Your task to perform on an android device: open app "Spotify" Image 0: 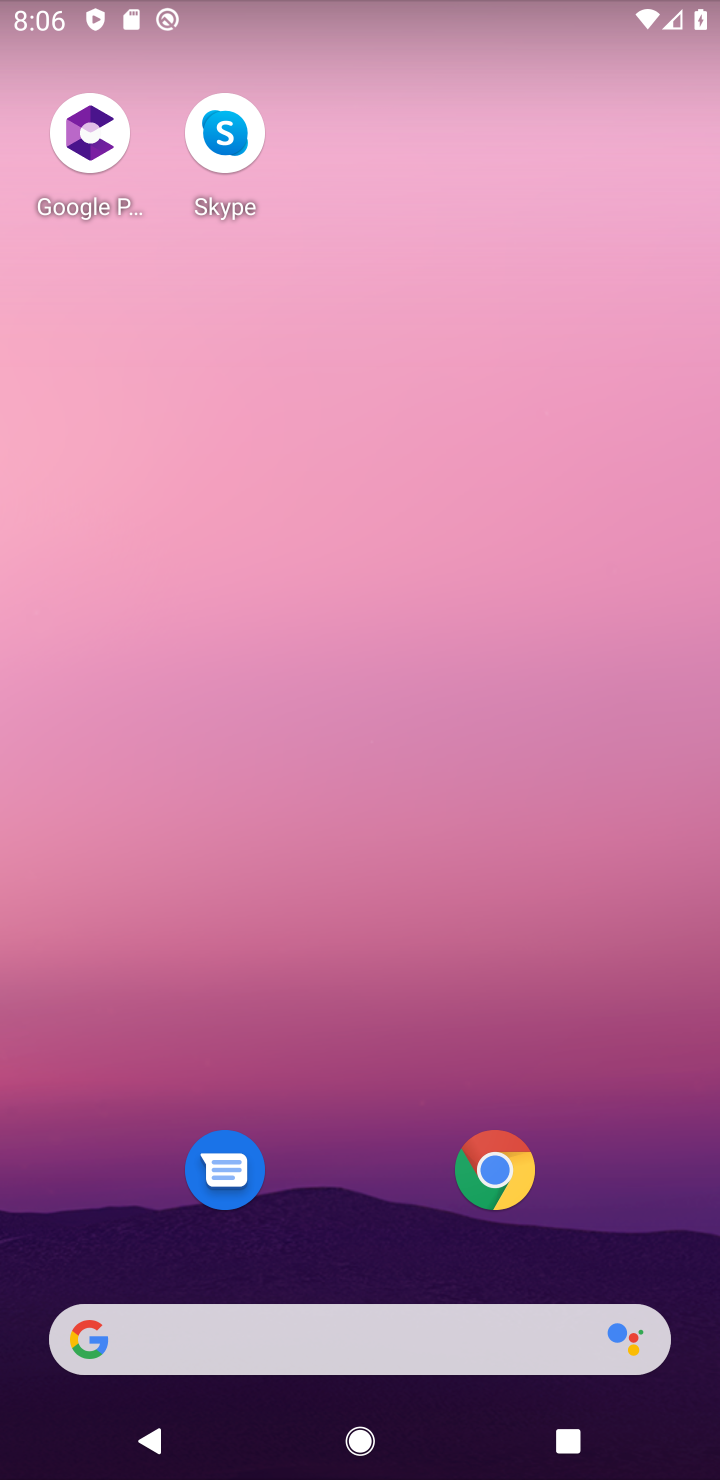
Step 0: drag from (424, 984) to (554, 67)
Your task to perform on an android device: open app "Spotify" Image 1: 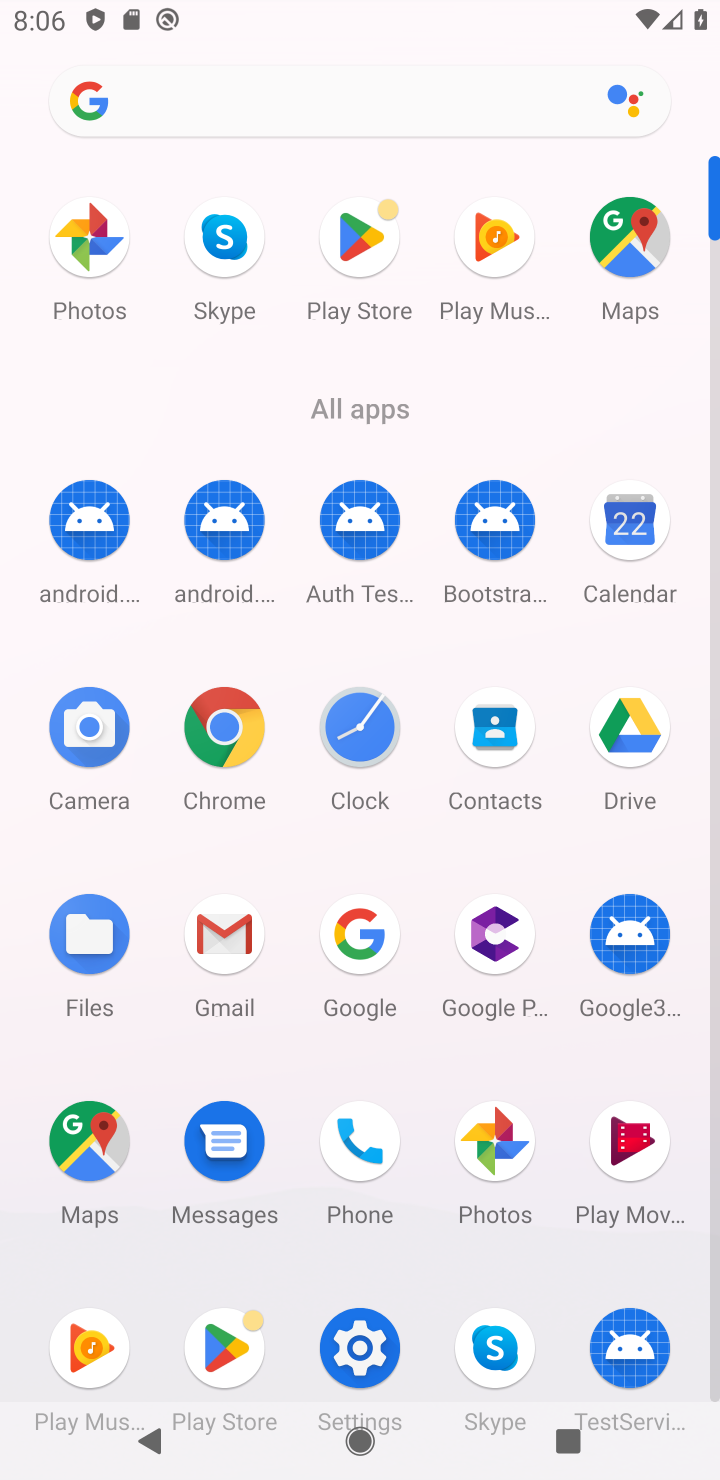
Step 1: click (355, 235)
Your task to perform on an android device: open app "Spotify" Image 2: 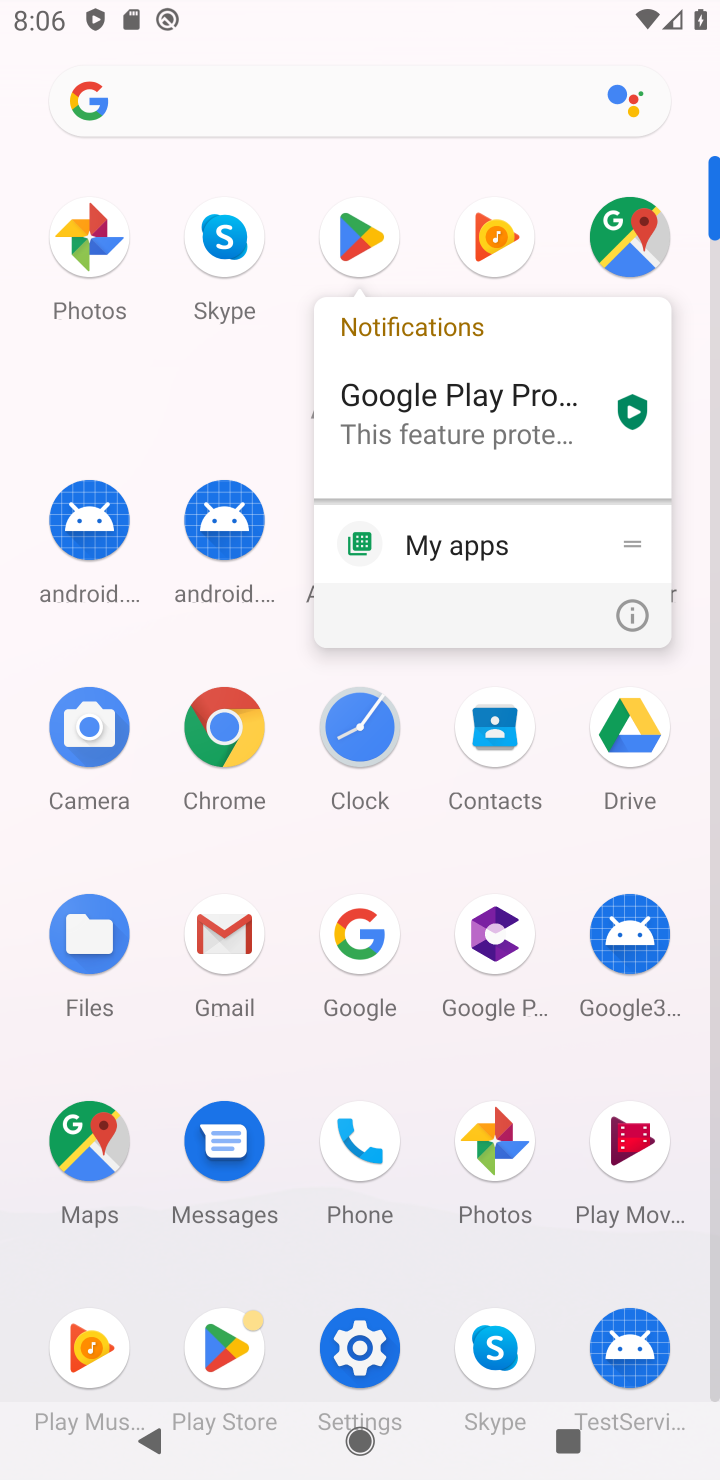
Step 2: click (364, 241)
Your task to perform on an android device: open app "Spotify" Image 3: 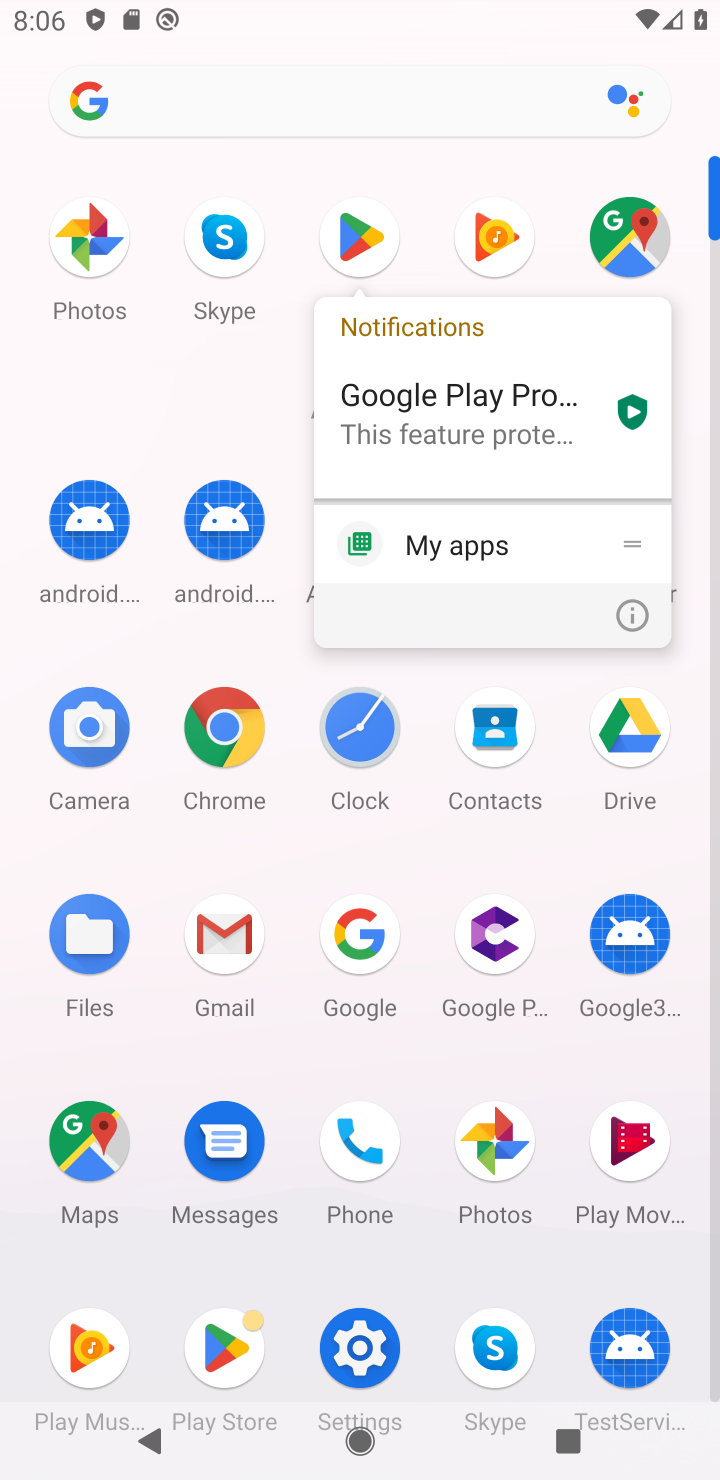
Step 3: click (351, 236)
Your task to perform on an android device: open app "Spotify" Image 4: 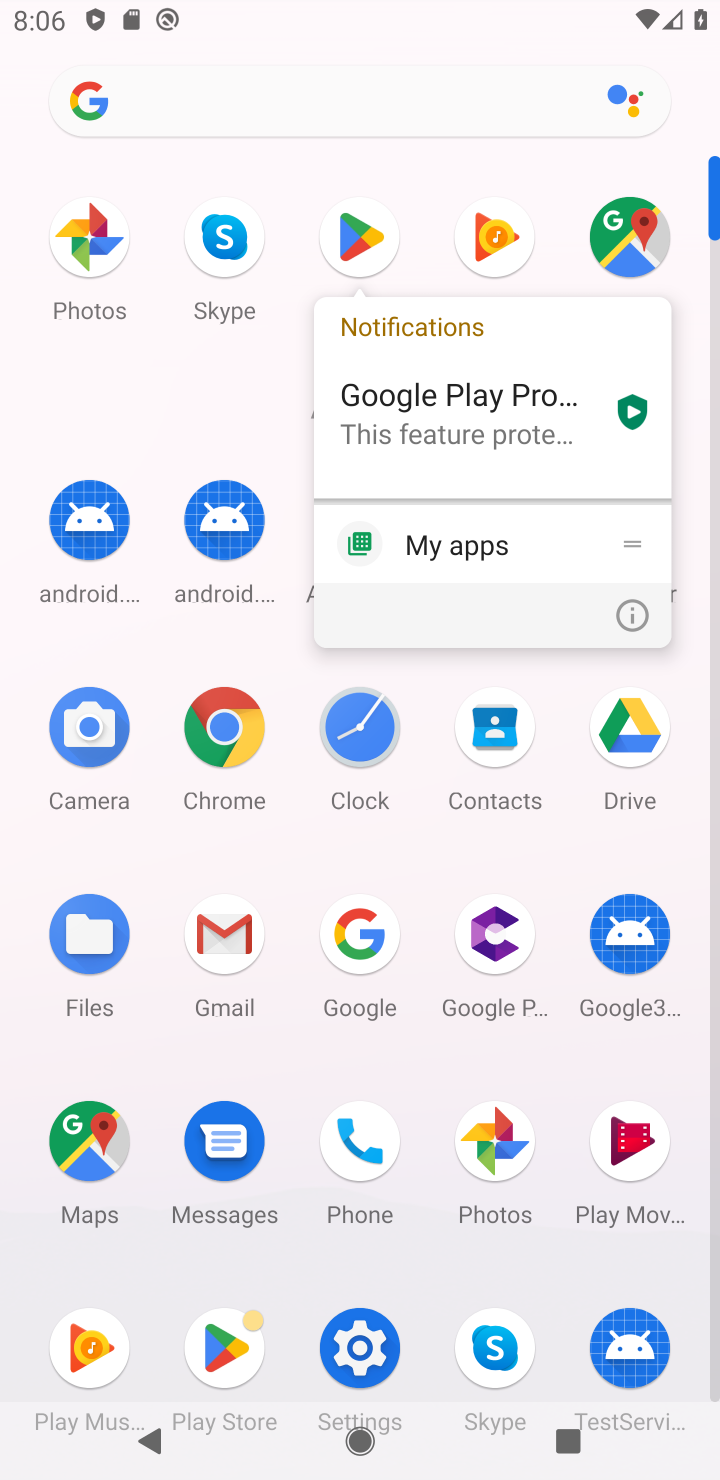
Step 4: click (342, 233)
Your task to perform on an android device: open app "Spotify" Image 5: 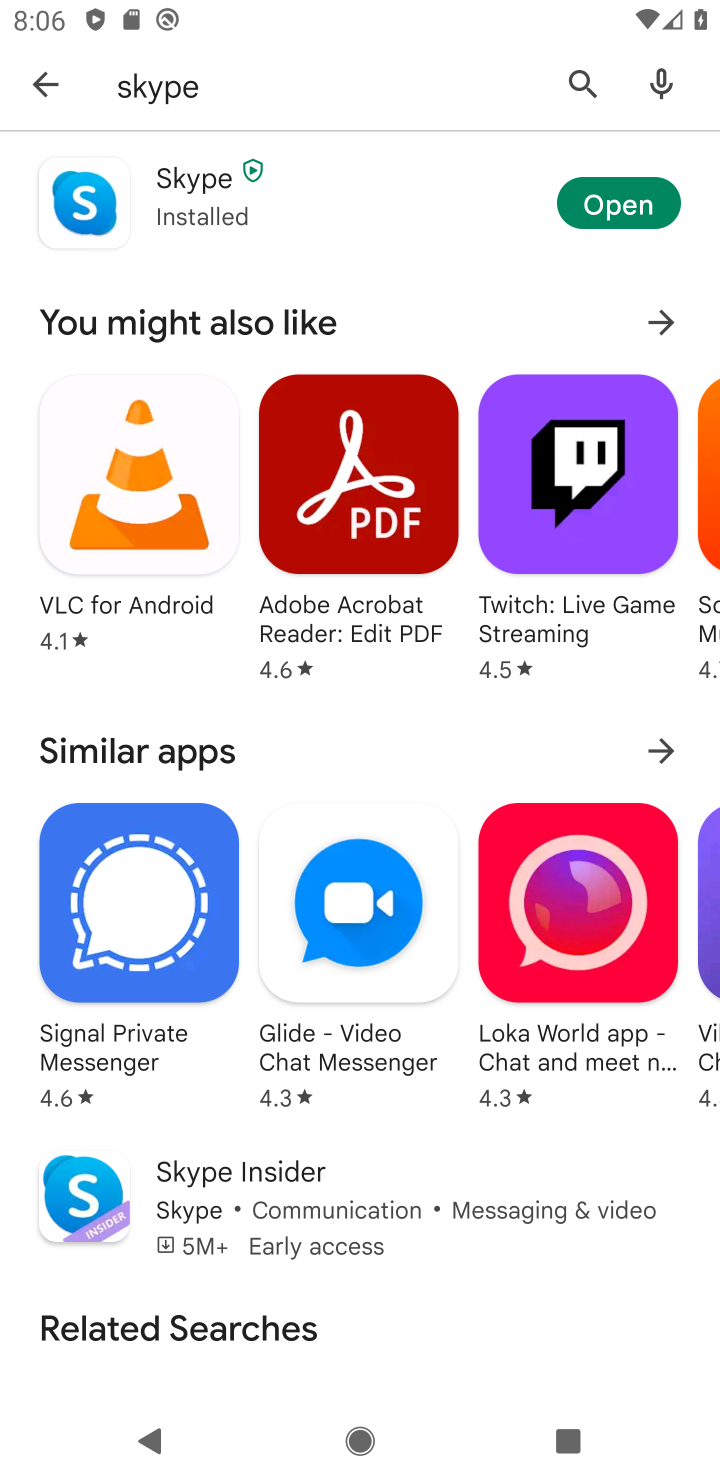
Step 5: click (587, 76)
Your task to perform on an android device: open app "Spotify" Image 6: 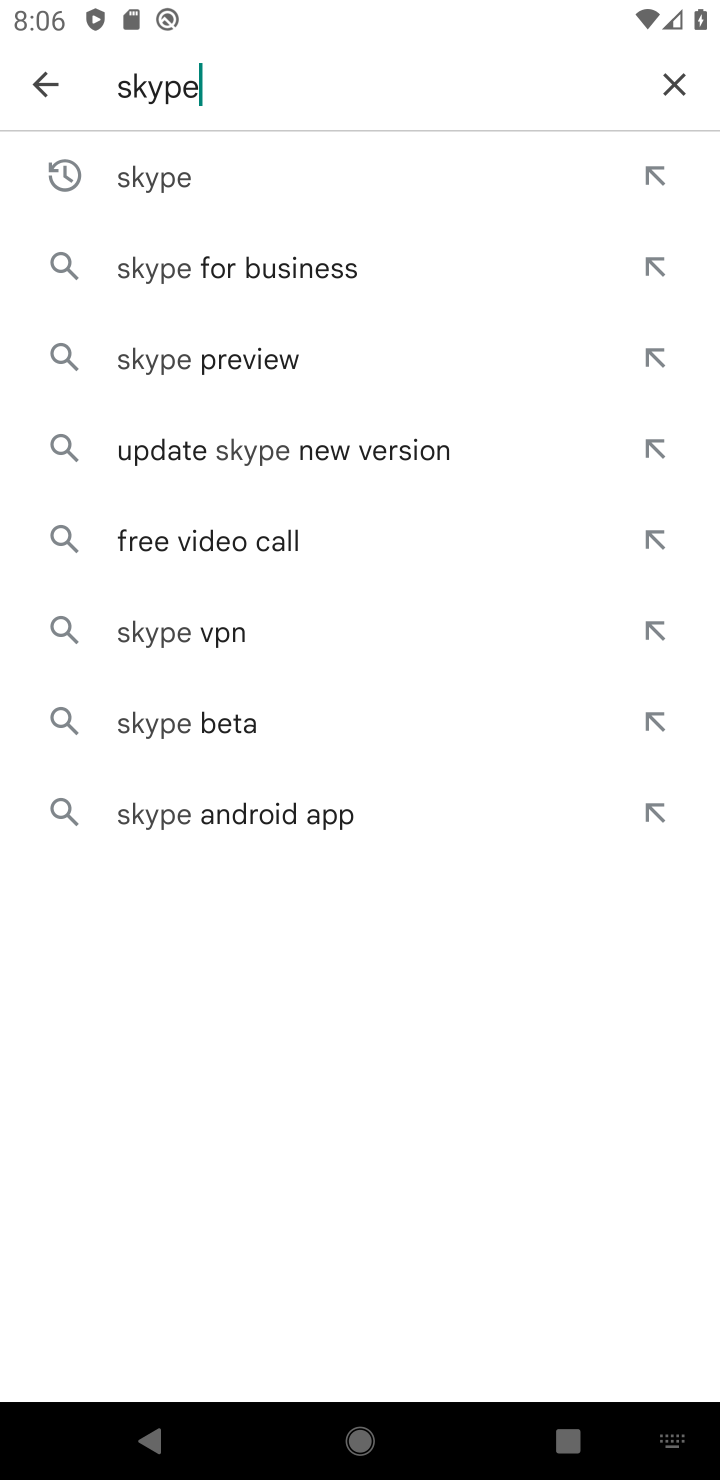
Step 6: click (661, 73)
Your task to perform on an android device: open app "Spotify" Image 7: 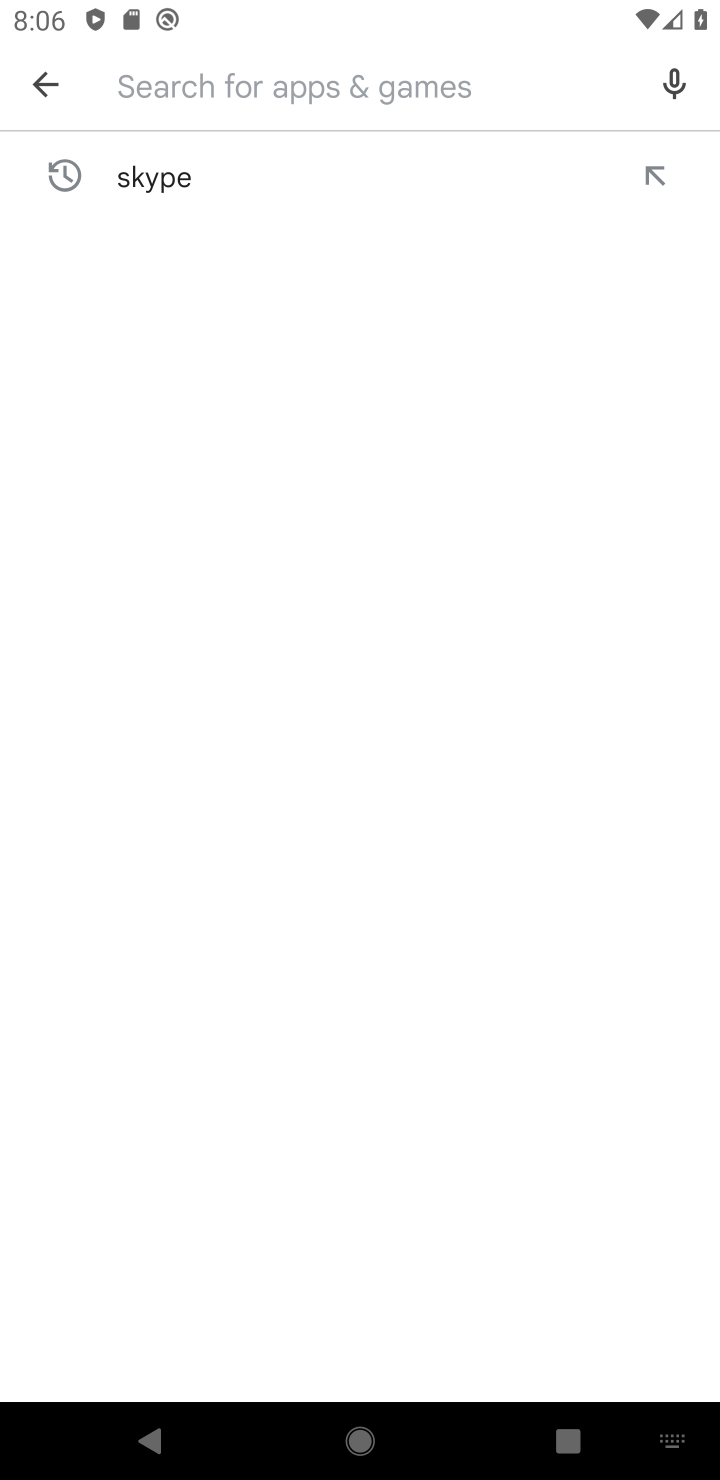
Step 7: click (216, 80)
Your task to perform on an android device: open app "Spotify" Image 8: 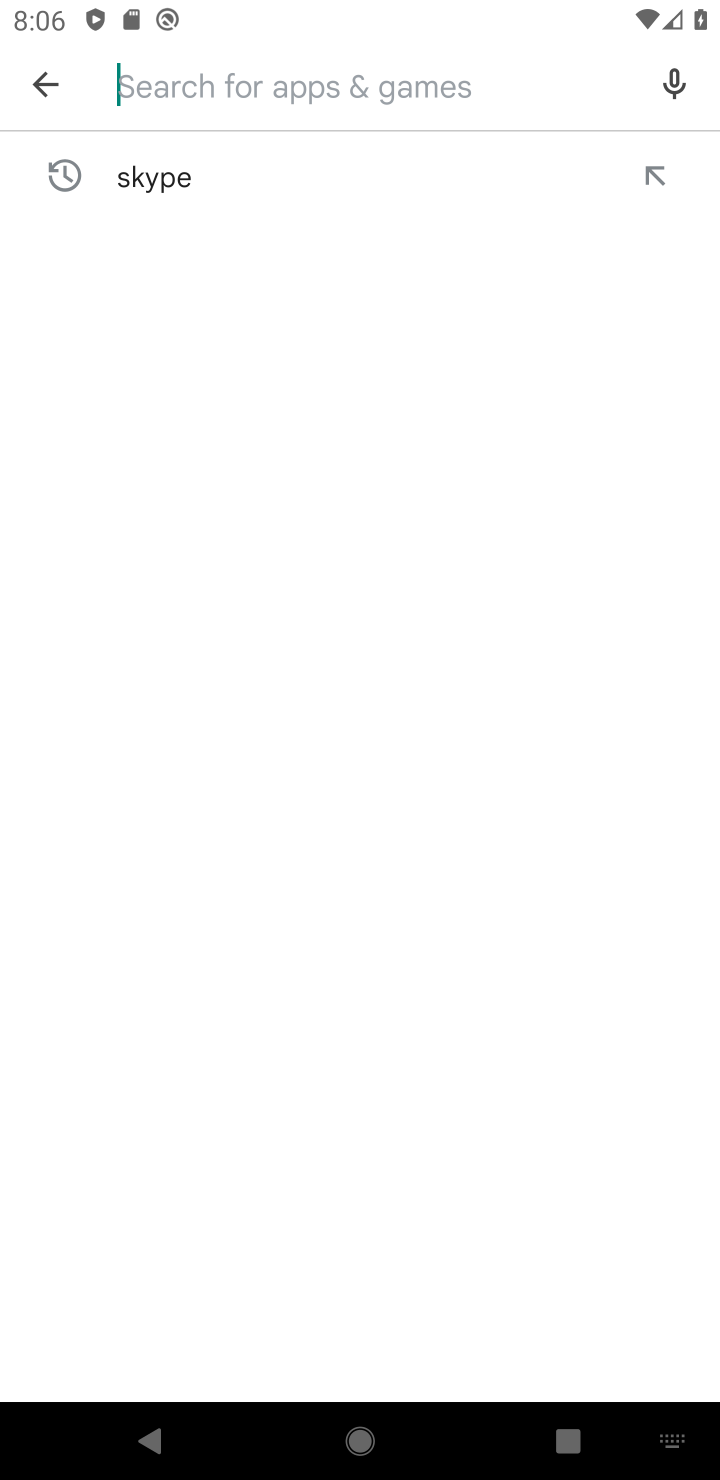
Step 8: type "spotify"
Your task to perform on an android device: open app "Spotify" Image 9: 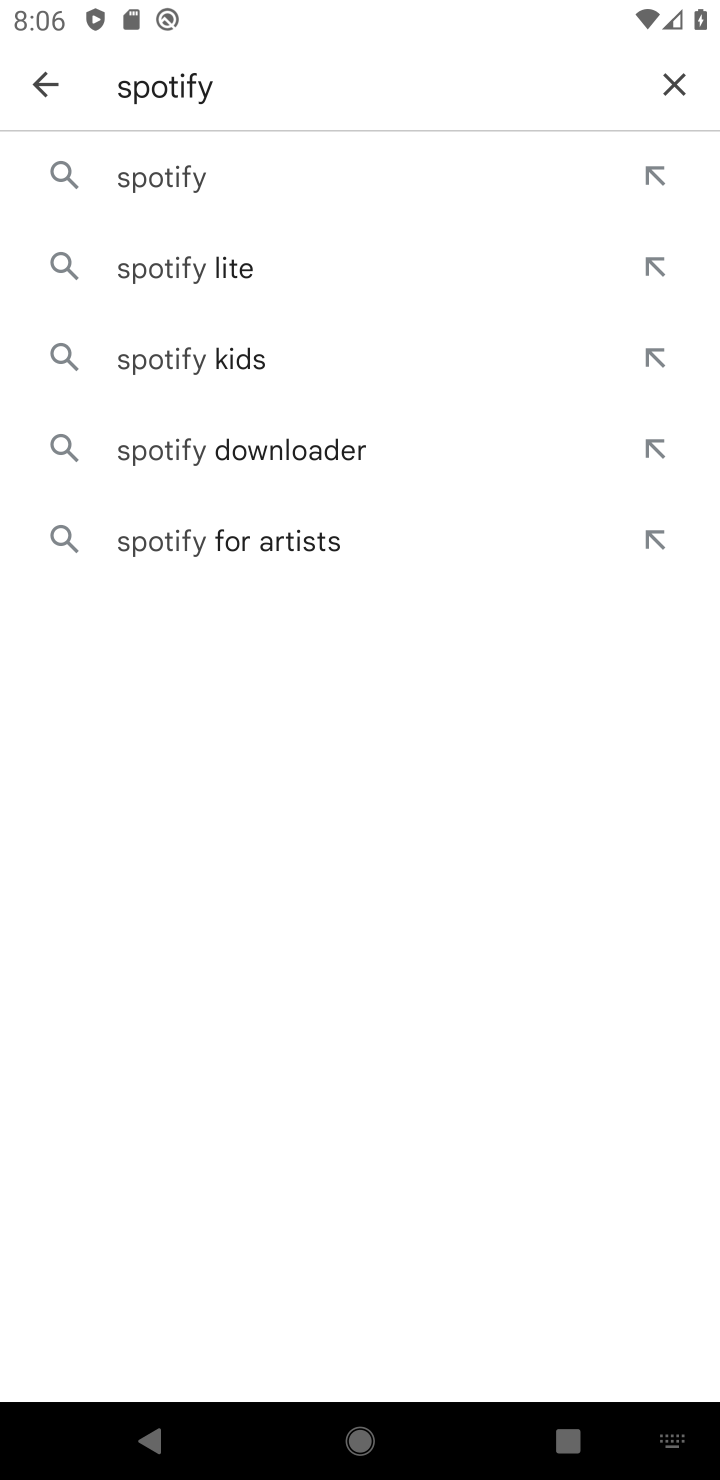
Step 9: click (245, 180)
Your task to perform on an android device: open app "Spotify" Image 10: 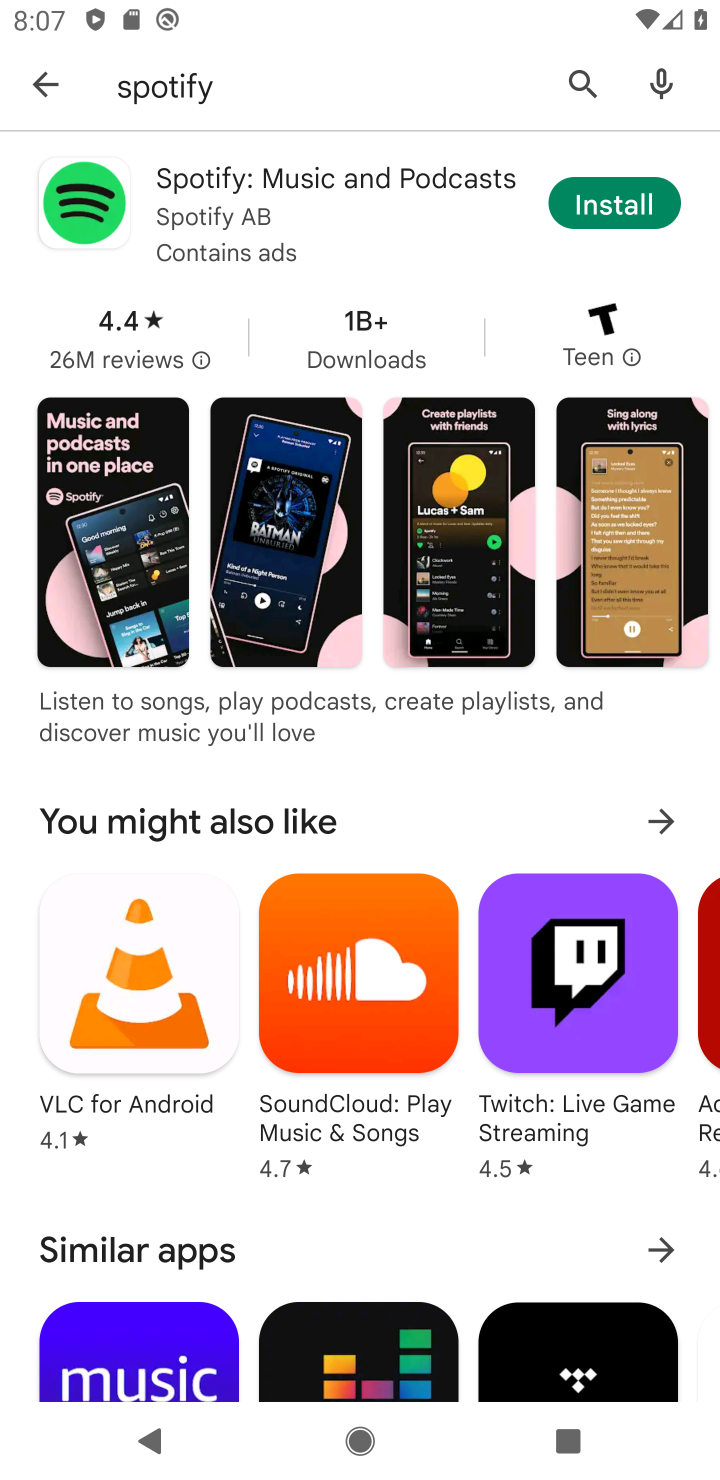
Step 10: task complete